Your task to perform on an android device: Show me popular videos on Youtube Image 0: 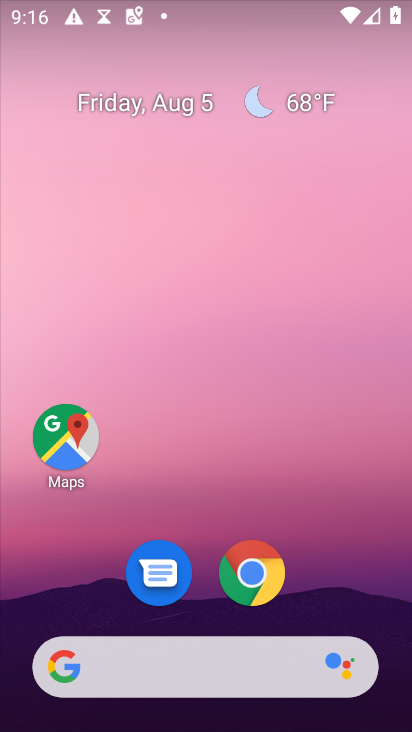
Step 0: drag from (218, 678) to (240, 50)
Your task to perform on an android device: Show me popular videos on Youtube Image 1: 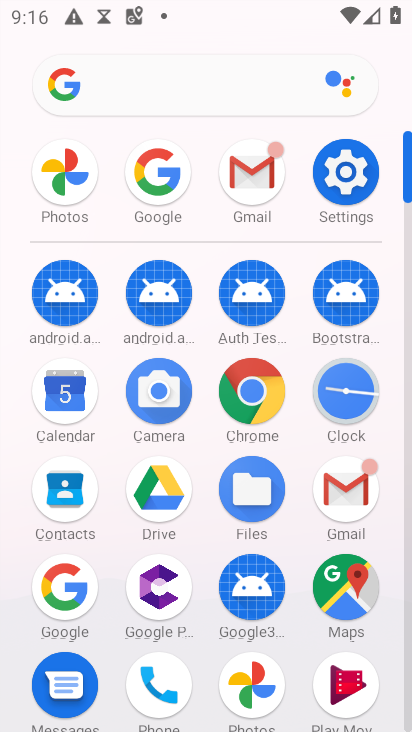
Step 1: drag from (213, 558) to (232, 152)
Your task to perform on an android device: Show me popular videos on Youtube Image 2: 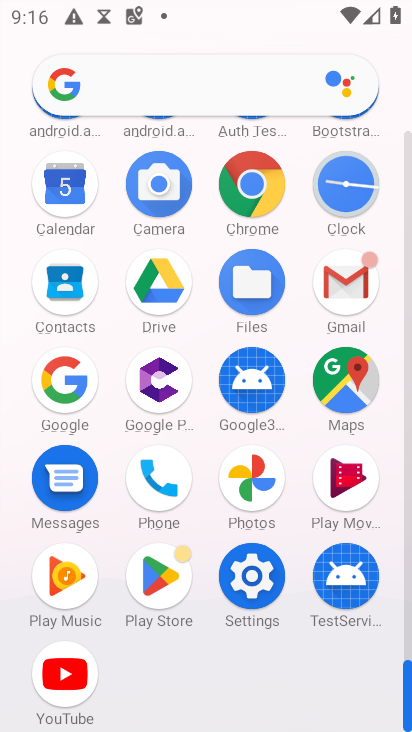
Step 2: click (65, 673)
Your task to perform on an android device: Show me popular videos on Youtube Image 3: 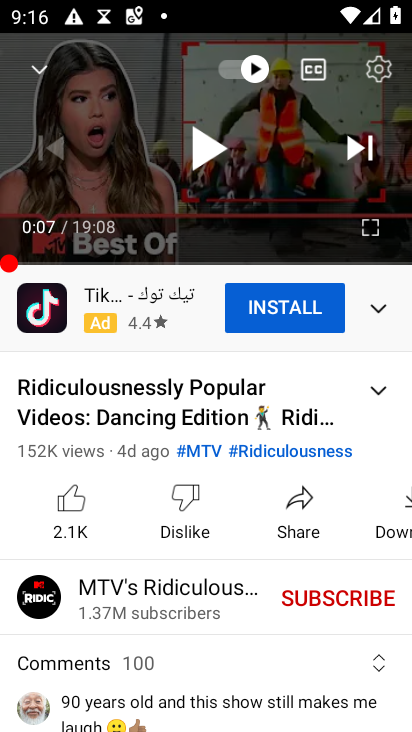
Step 3: press back button
Your task to perform on an android device: Show me popular videos on Youtube Image 4: 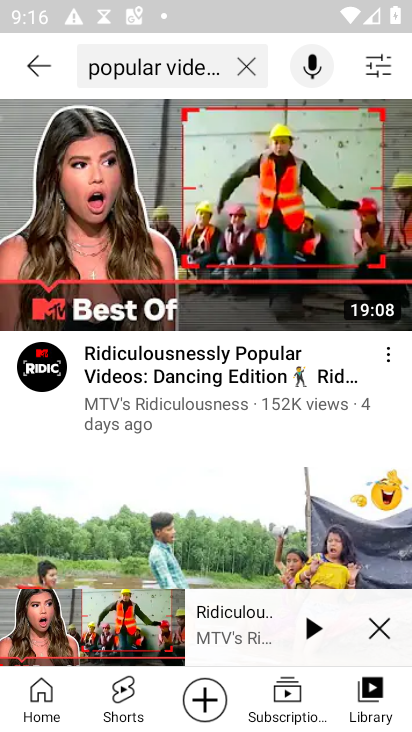
Step 4: click (384, 626)
Your task to perform on an android device: Show me popular videos on Youtube Image 5: 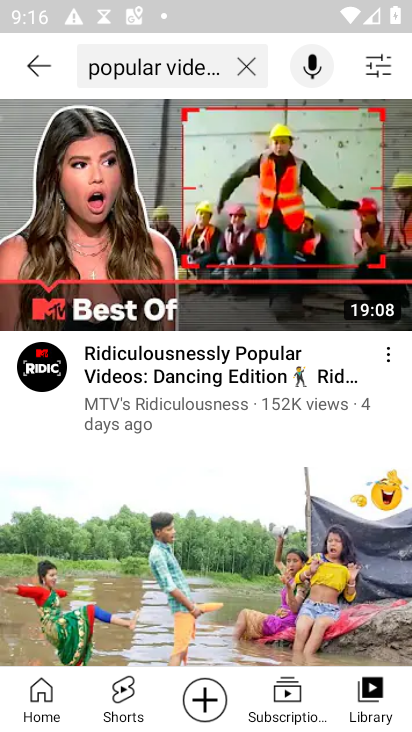
Step 5: task complete